Your task to perform on an android device: install app "Google Translate" Image 0: 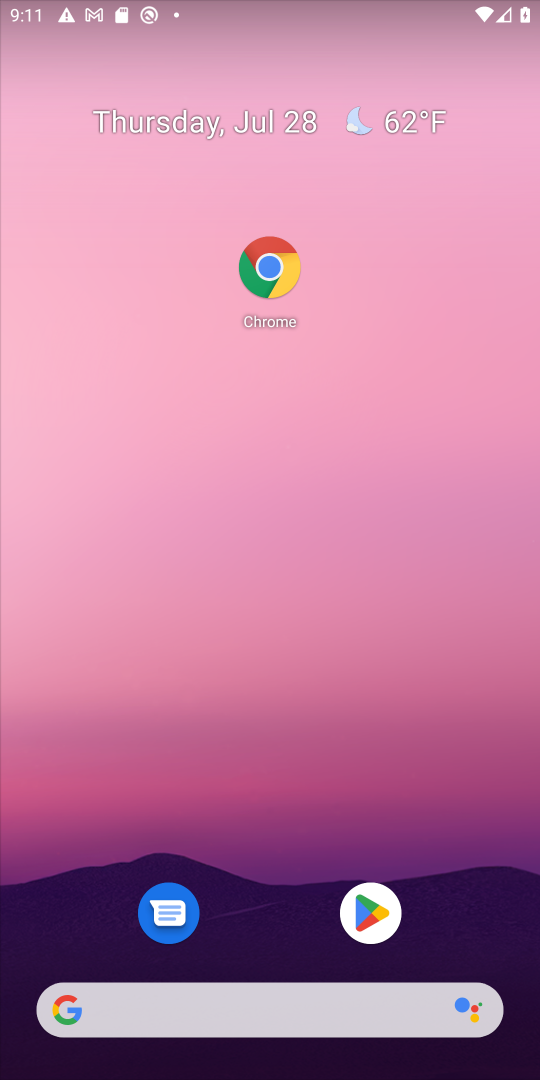
Step 0: press home button
Your task to perform on an android device: install app "Google Translate" Image 1: 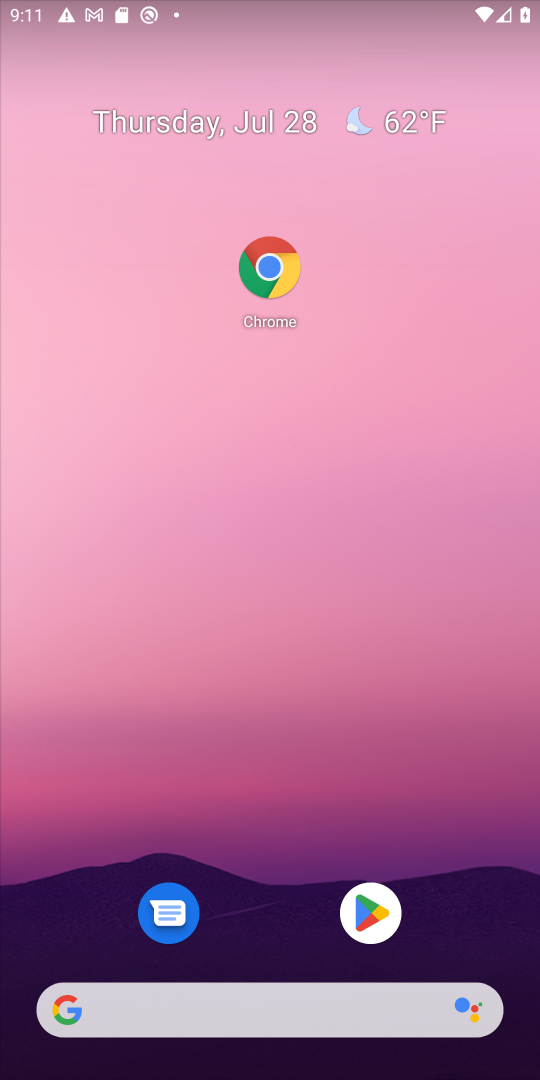
Step 1: click (389, 906)
Your task to perform on an android device: install app "Google Translate" Image 2: 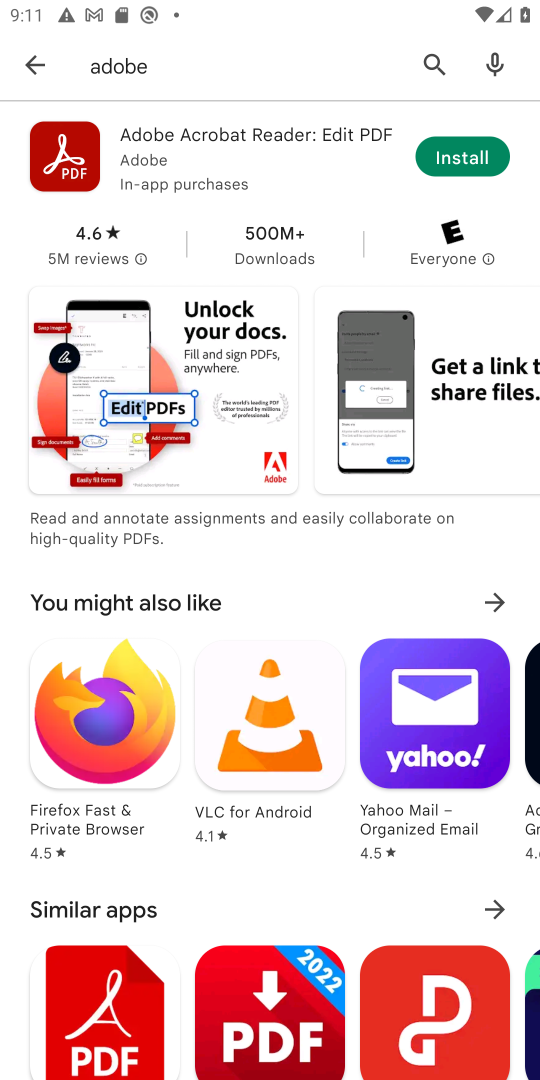
Step 2: click (427, 60)
Your task to perform on an android device: install app "Google Translate" Image 3: 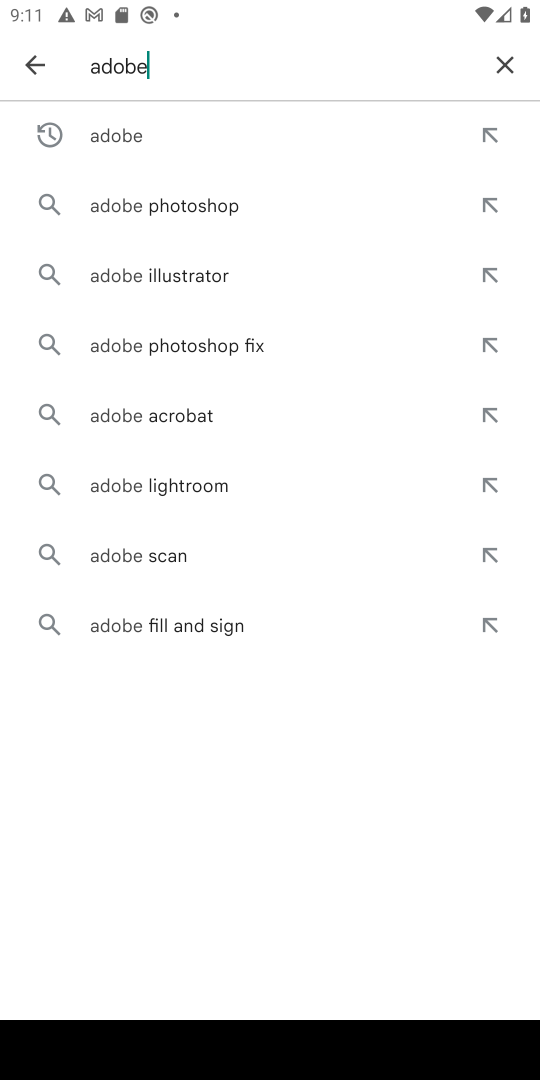
Step 3: click (503, 72)
Your task to perform on an android device: install app "Google Translate" Image 4: 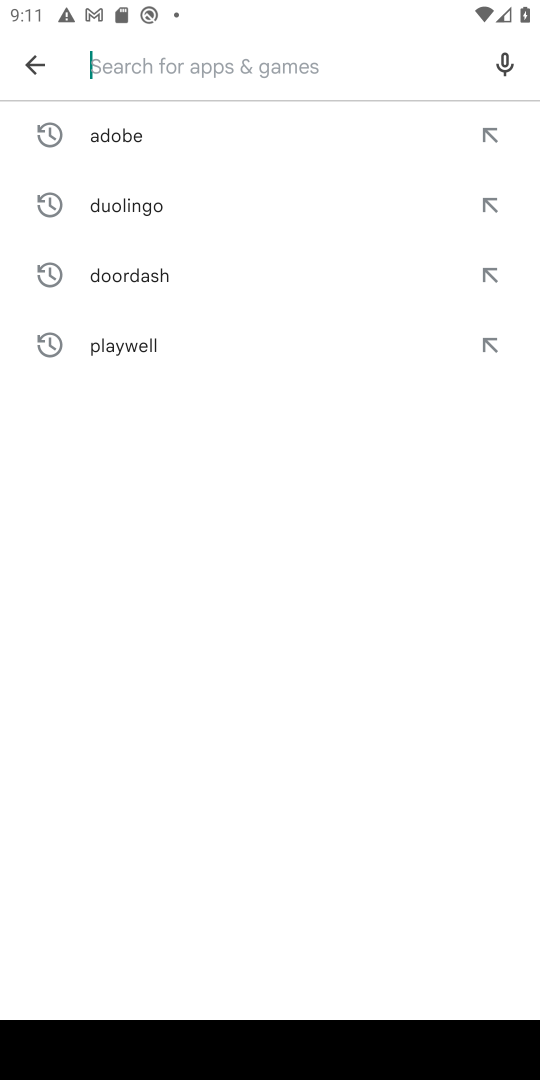
Step 4: type "trans"
Your task to perform on an android device: install app "Google Translate" Image 5: 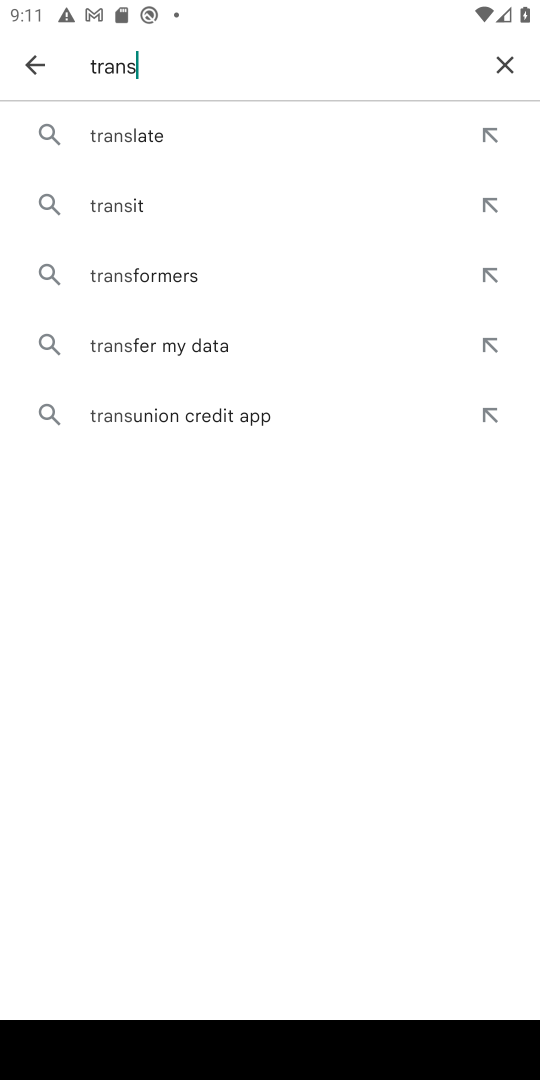
Step 5: click (123, 130)
Your task to perform on an android device: install app "Google Translate" Image 6: 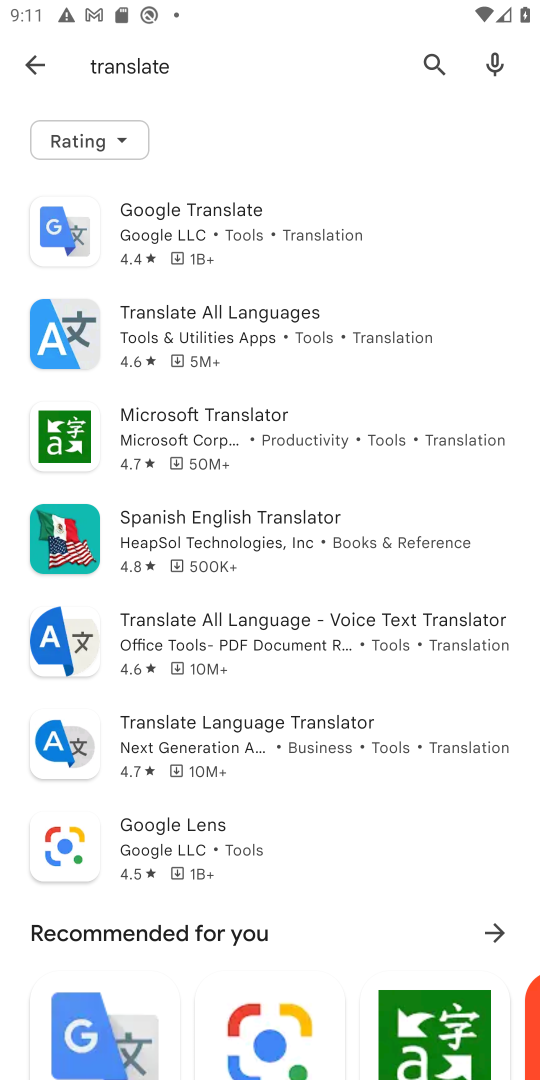
Step 6: click (201, 253)
Your task to perform on an android device: install app "Google Translate" Image 7: 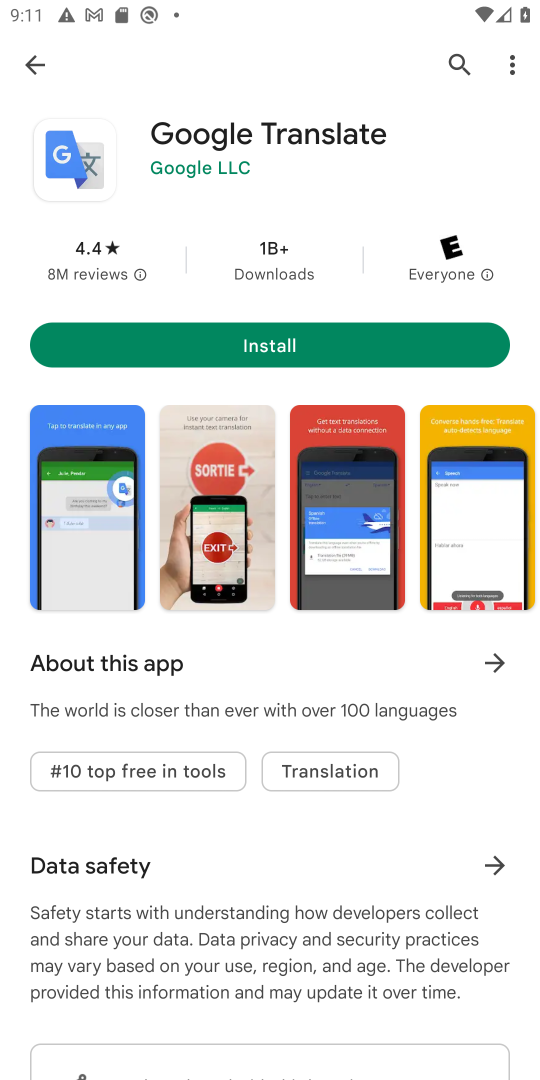
Step 7: click (239, 347)
Your task to perform on an android device: install app "Google Translate" Image 8: 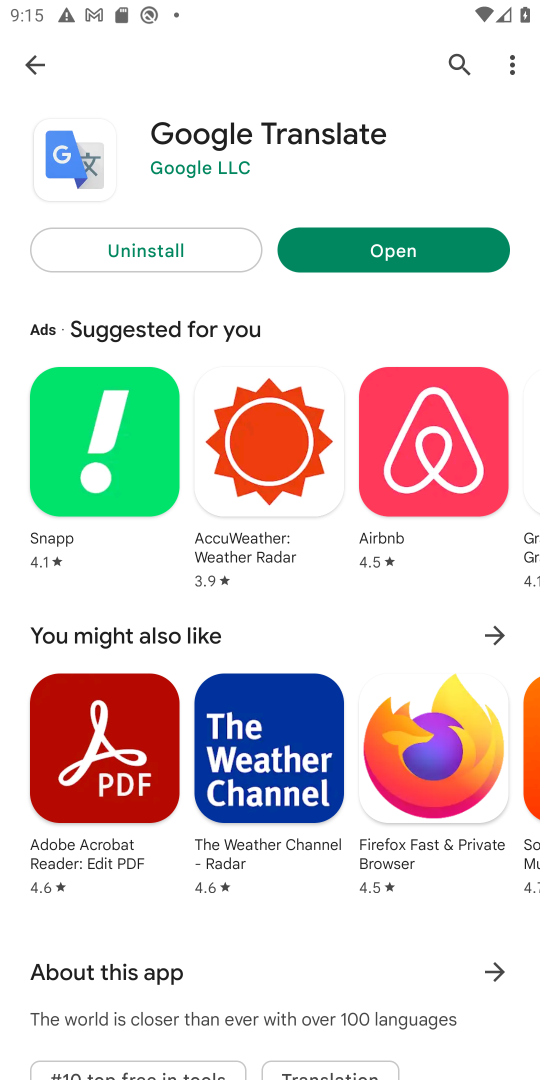
Step 8: task complete